Your task to perform on an android device: Find coffee shops on Maps Image 0: 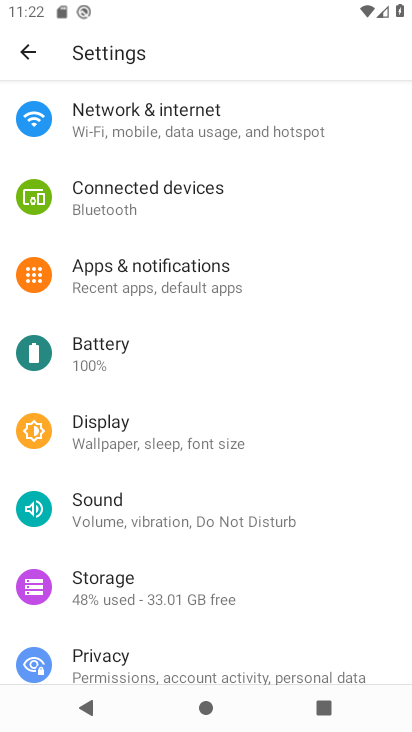
Step 0: press home button
Your task to perform on an android device: Find coffee shops on Maps Image 1: 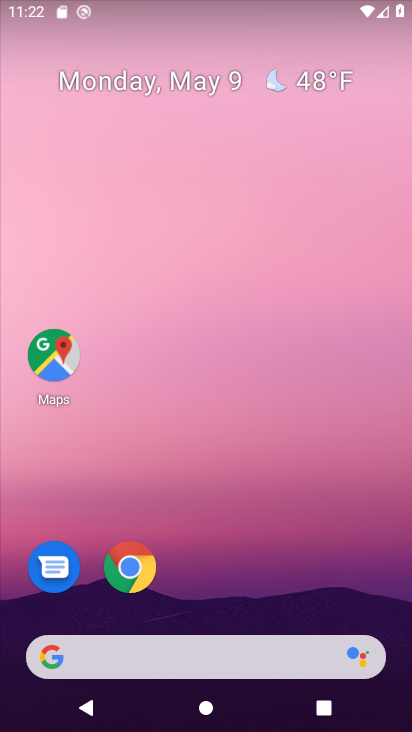
Step 1: click (75, 357)
Your task to perform on an android device: Find coffee shops on Maps Image 2: 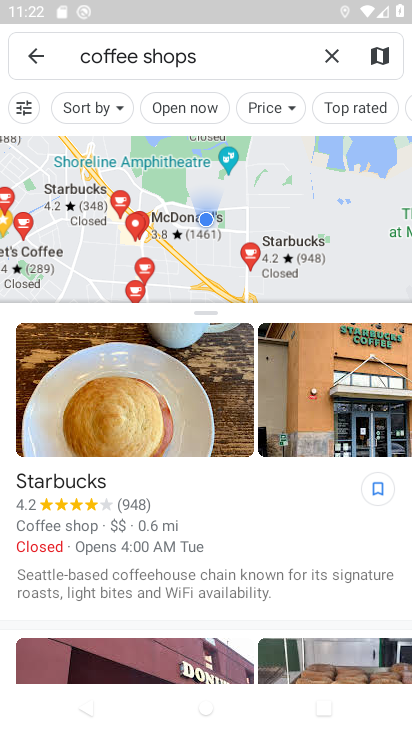
Step 2: task complete